Your task to perform on an android device: What is the news today? Image 0: 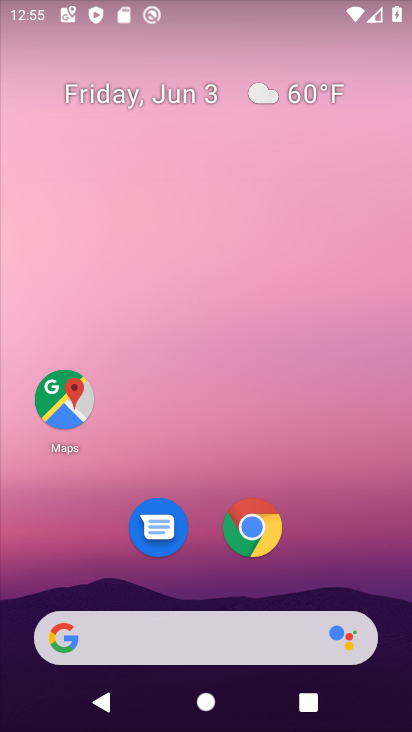
Step 0: drag from (348, 572) to (410, 28)
Your task to perform on an android device: What is the news today? Image 1: 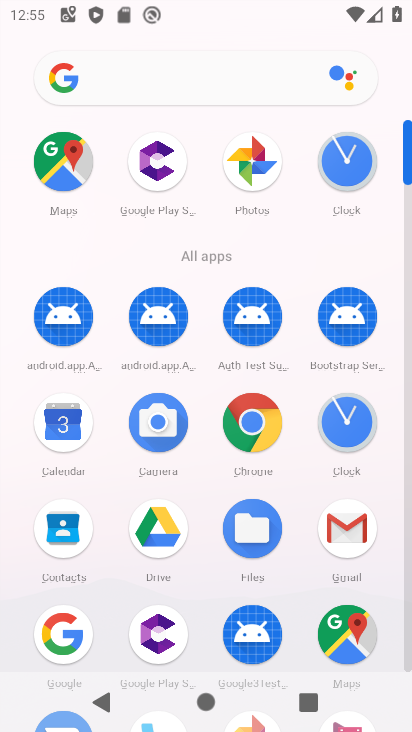
Step 1: click (132, 90)
Your task to perform on an android device: What is the news today? Image 2: 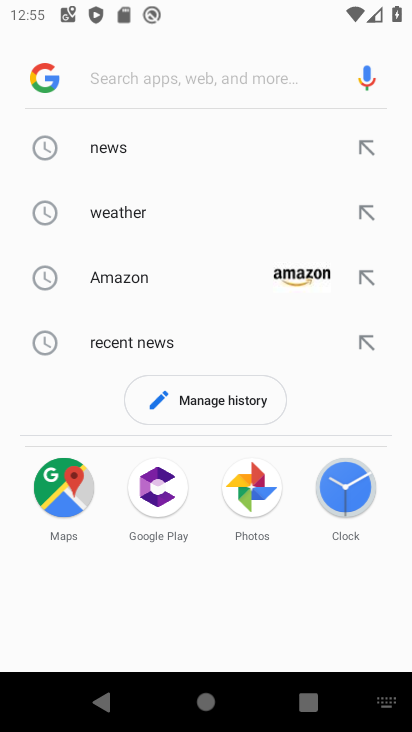
Step 2: click (140, 93)
Your task to perform on an android device: What is the news today? Image 3: 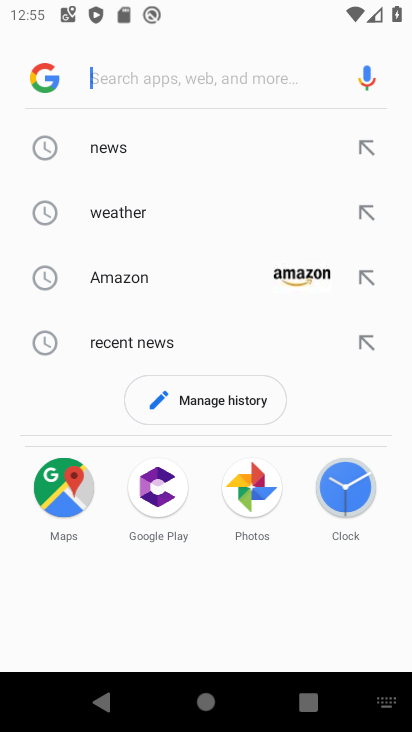
Step 3: type "what is the news today"
Your task to perform on an android device: What is the news today? Image 4: 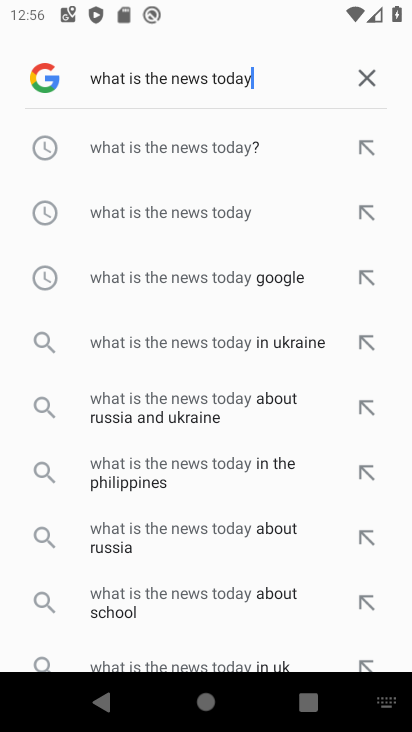
Step 4: click (152, 138)
Your task to perform on an android device: What is the news today? Image 5: 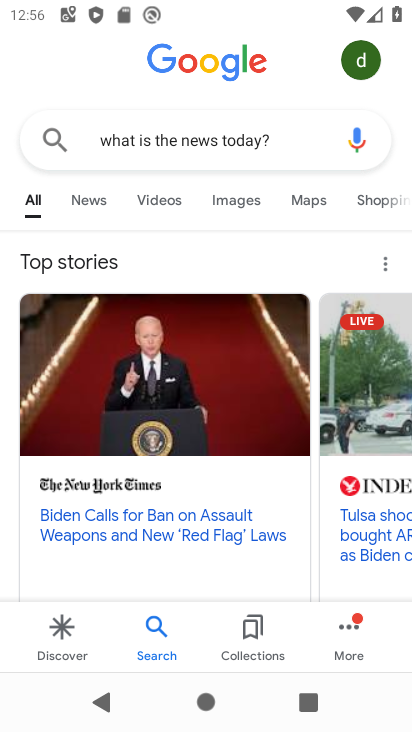
Step 5: click (83, 215)
Your task to perform on an android device: What is the news today? Image 6: 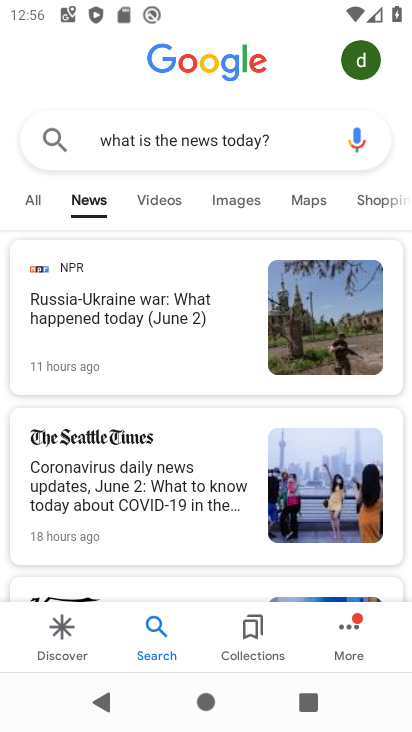
Step 6: task complete